Your task to perform on an android device: Open internet settings Image 0: 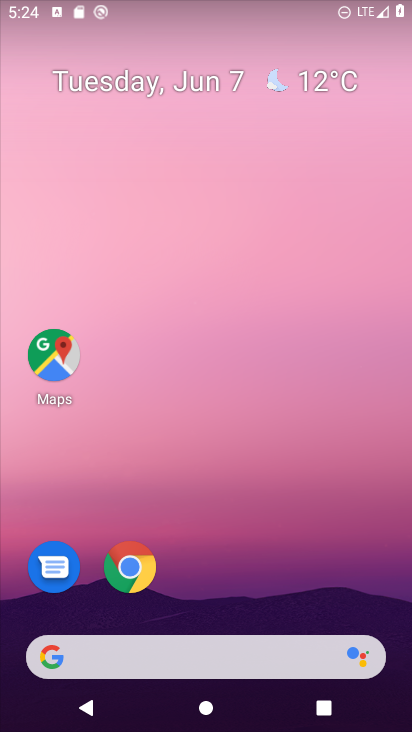
Step 0: drag from (172, 672) to (283, 91)
Your task to perform on an android device: Open internet settings Image 1: 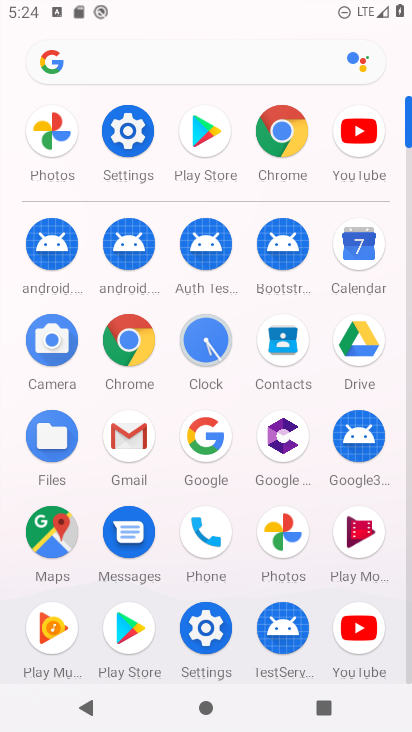
Step 1: click (134, 122)
Your task to perform on an android device: Open internet settings Image 2: 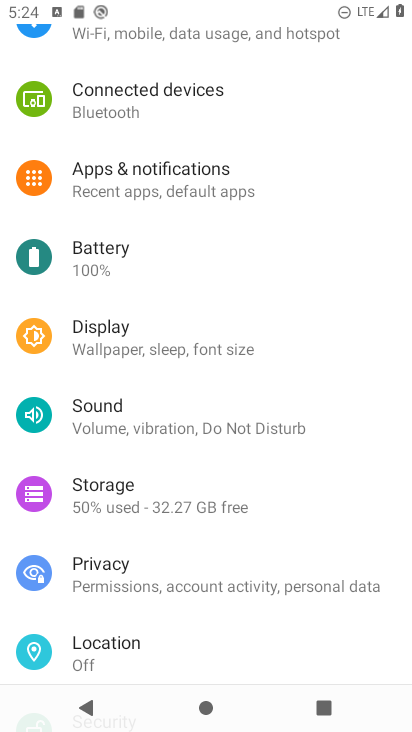
Step 2: drag from (167, 151) to (180, 622)
Your task to perform on an android device: Open internet settings Image 3: 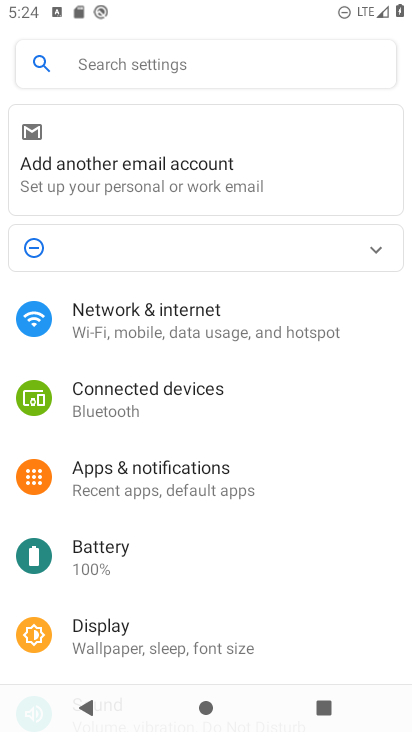
Step 3: click (176, 326)
Your task to perform on an android device: Open internet settings Image 4: 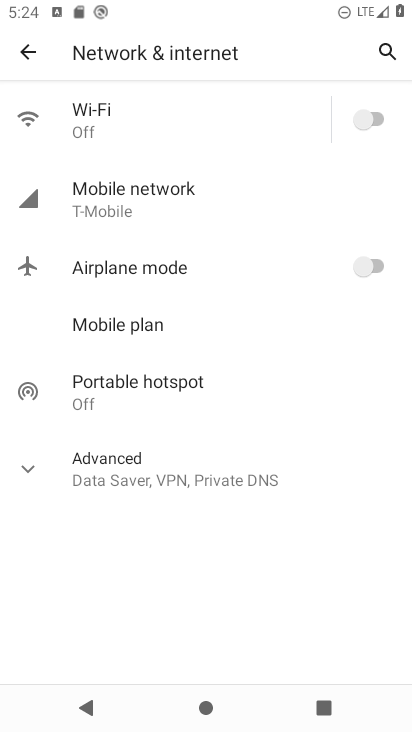
Step 4: task complete